Your task to perform on an android device: Open wifi settings Image 0: 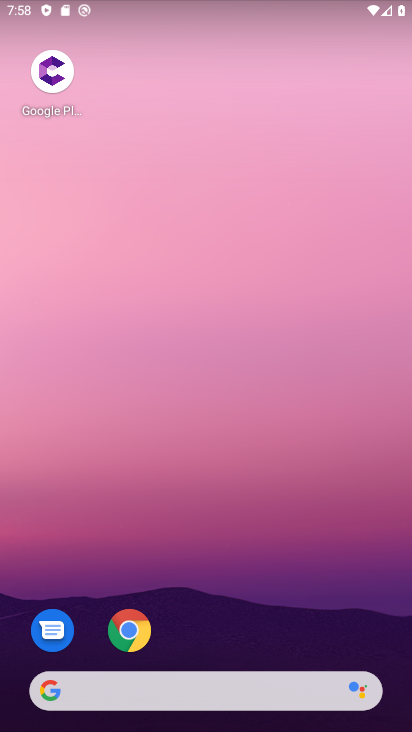
Step 0: drag from (296, 597) to (194, 0)
Your task to perform on an android device: Open wifi settings Image 1: 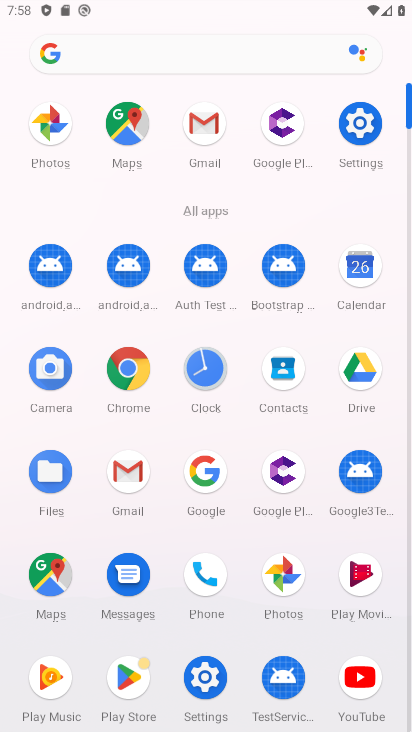
Step 1: click (379, 173)
Your task to perform on an android device: Open wifi settings Image 2: 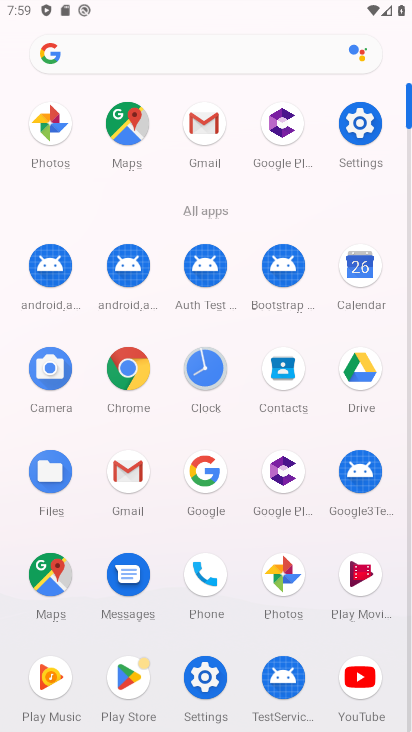
Step 2: click (332, 124)
Your task to perform on an android device: Open wifi settings Image 3: 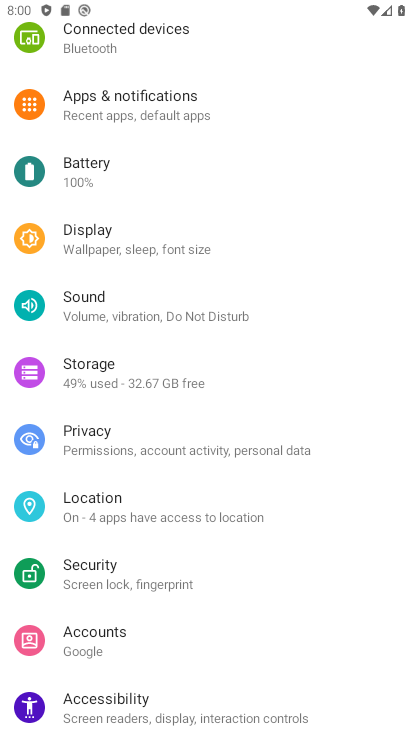
Step 3: click (301, 461)
Your task to perform on an android device: Open wifi settings Image 4: 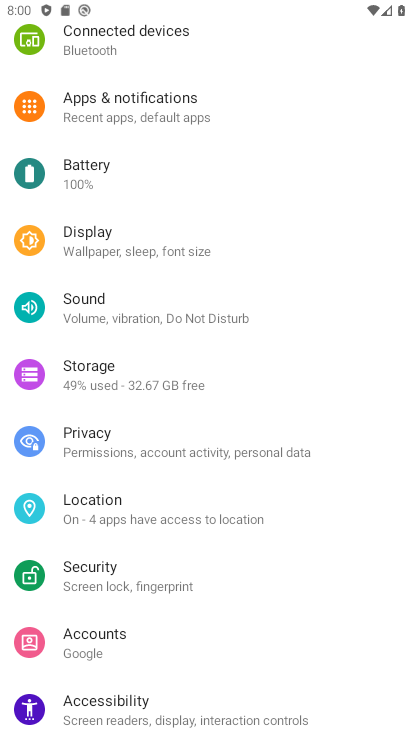
Step 4: drag from (134, 155) to (214, 504)
Your task to perform on an android device: Open wifi settings Image 5: 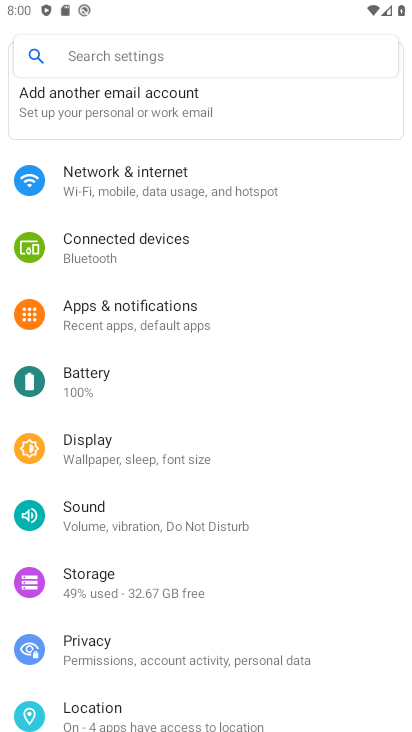
Step 5: click (139, 197)
Your task to perform on an android device: Open wifi settings Image 6: 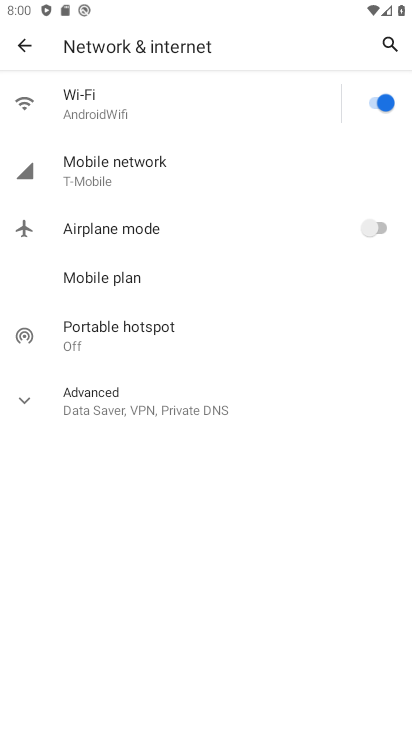
Step 6: click (86, 105)
Your task to perform on an android device: Open wifi settings Image 7: 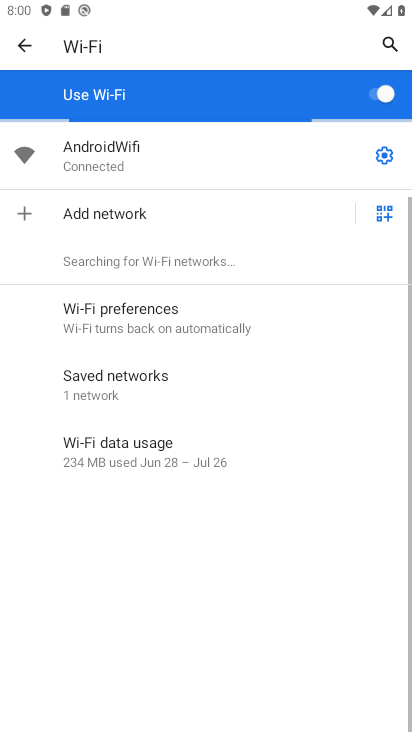
Step 7: task complete